Your task to perform on an android device: turn on notifications settings in the gmail app Image 0: 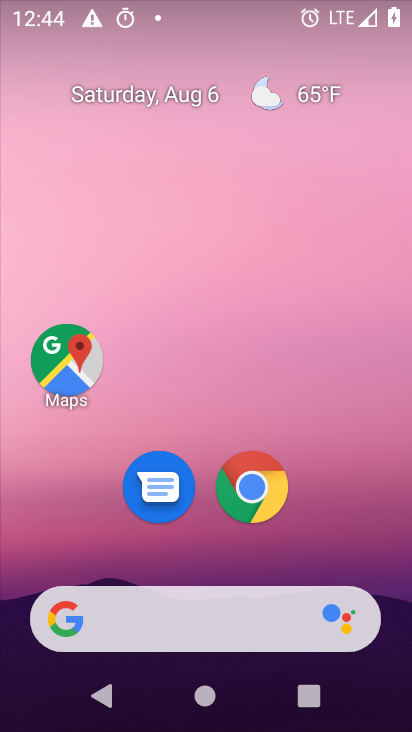
Step 0: drag from (166, 510) to (240, 74)
Your task to perform on an android device: turn on notifications settings in the gmail app Image 1: 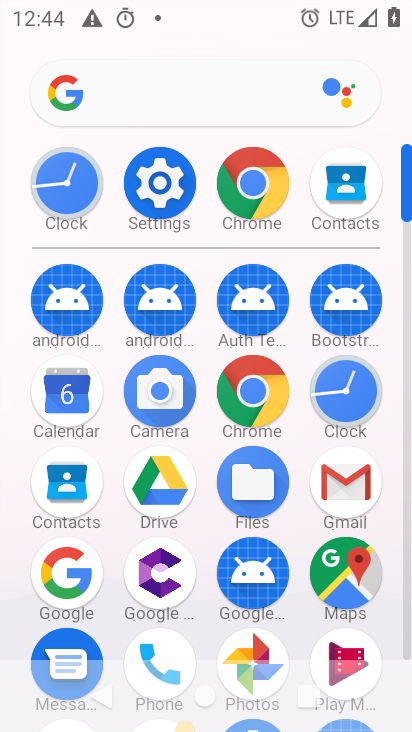
Step 1: click (353, 484)
Your task to perform on an android device: turn on notifications settings in the gmail app Image 2: 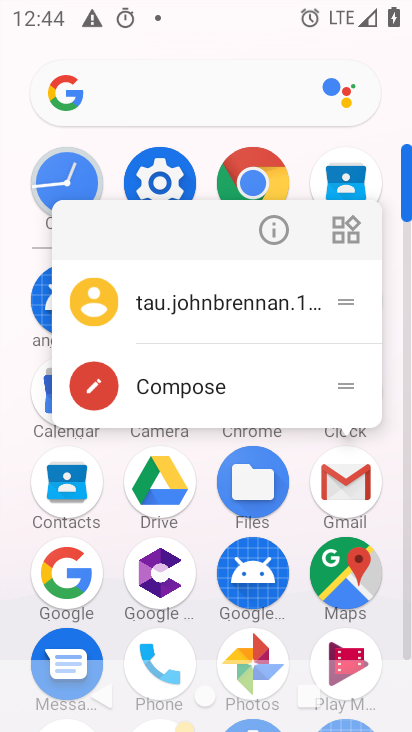
Step 2: click (283, 218)
Your task to perform on an android device: turn on notifications settings in the gmail app Image 3: 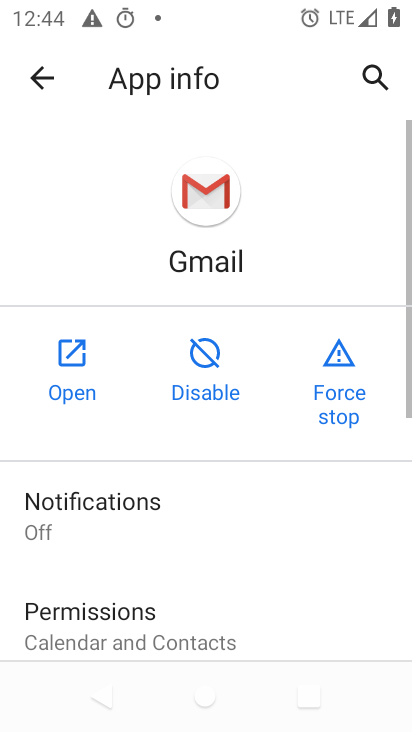
Step 3: click (122, 543)
Your task to perform on an android device: turn on notifications settings in the gmail app Image 4: 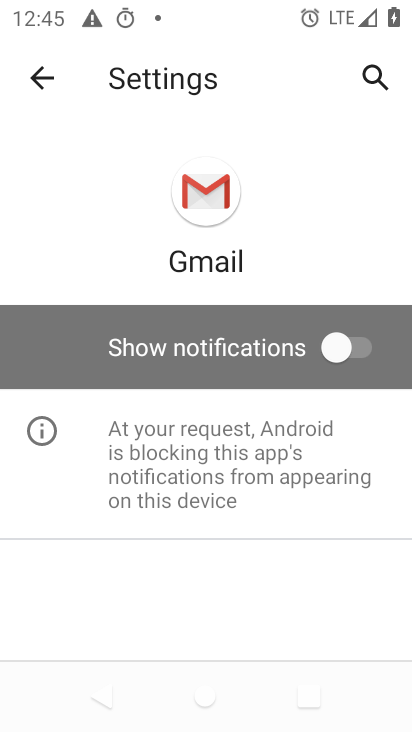
Step 4: click (346, 352)
Your task to perform on an android device: turn on notifications settings in the gmail app Image 5: 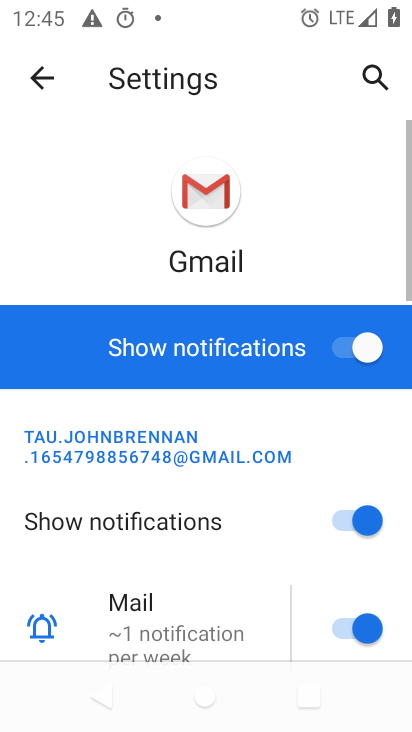
Step 5: task complete